Your task to perform on an android device: Search for seafood restaurants on Google Maps Image 0: 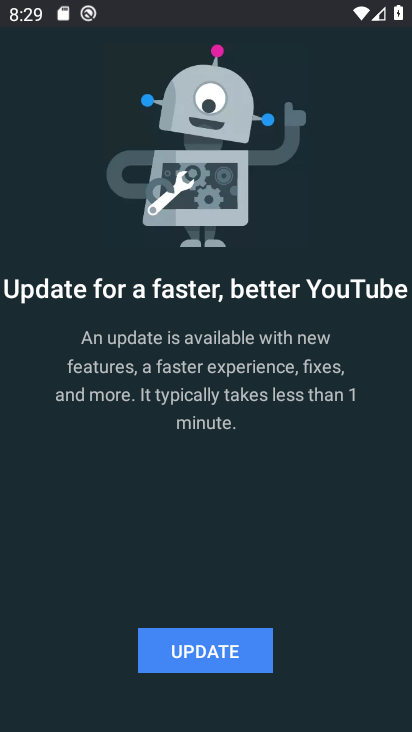
Step 0: press home button
Your task to perform on an android device: Search for seafood restaurants on Google Maps Image 1: 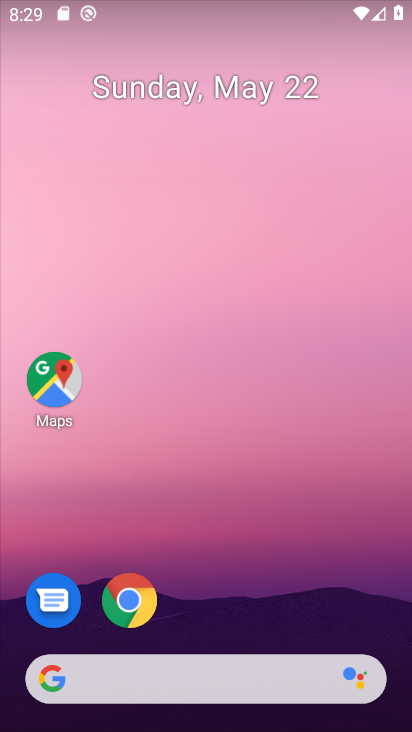
Step 1: drag from (211, 593) to (229, 320)
Your task to perform on an android device: Search for seafood restaurants on Google Maps Image 2: 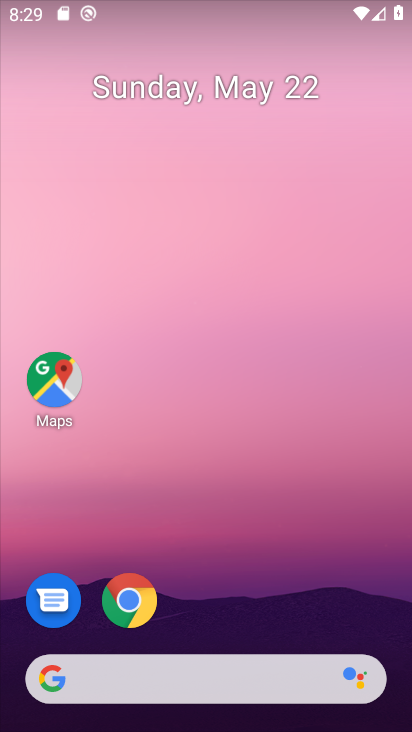
Step 2: click (56, 394)
Your task to perform on an android device: Search for seafood restaurants on Google Maps Image 3: 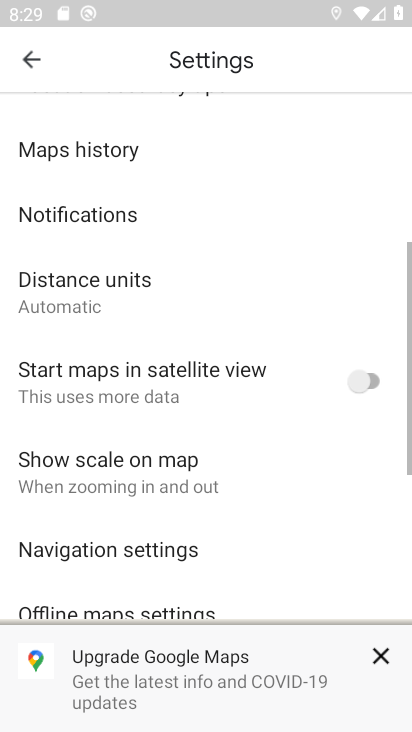
Step 3: click (30, 63)
Your task to perform on an android device: Search for seafood restaurants on Google Maps Image 4: 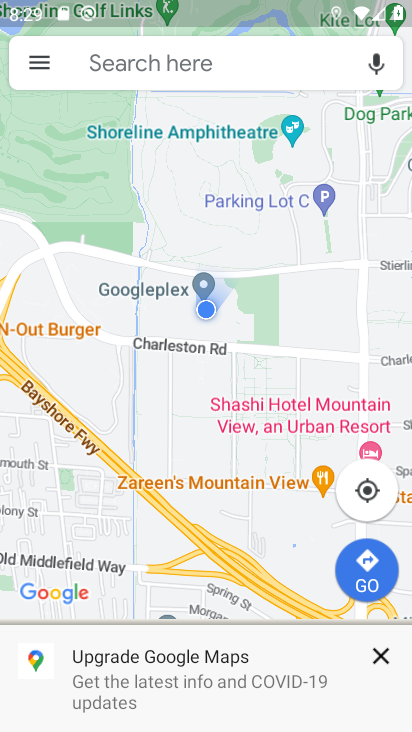
Step 4: click (233, 67)
Your task to perform on an android device: Search for seafood restaurants on Google Maps Image 5: 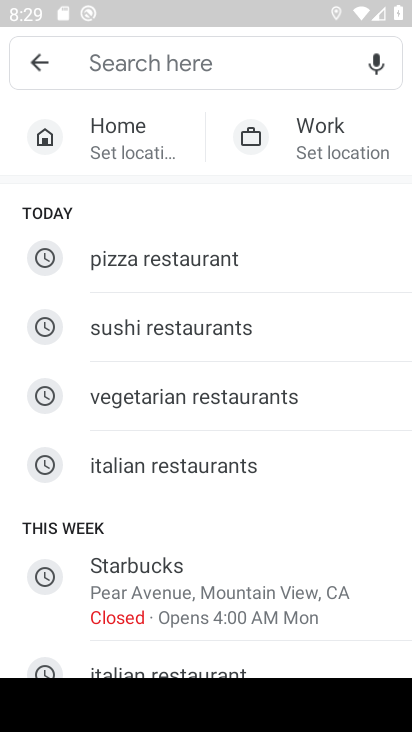
Step 5: drag from (140, 523) to (148, 209)
Your task to perform on an android device: Search for seafood restaurants on Google Maps Image 6: 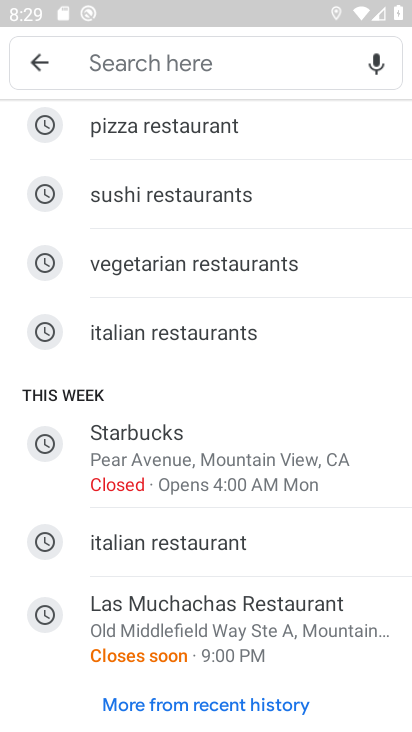
Step 6: drag from (150, 616) to (162, 339)
Your task to perform on an android device: Search for seafood restaurants on Google Maps Image 7: 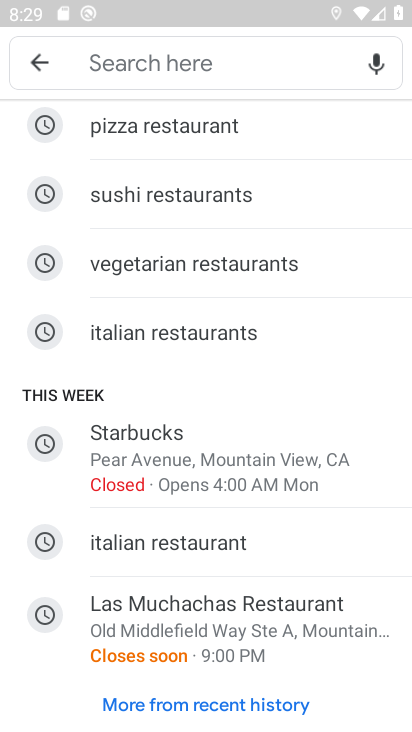
Step 7: click (170, 713)
Your task to perform on an android device: Search for seafood restaurants on Google Maps Image 8: 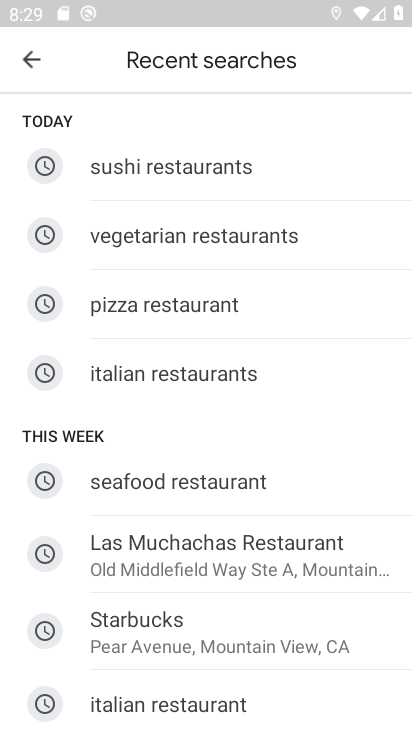
Step 8: drag from (172, 659) to (201, 406)
Your task to perform on an android device: Search for seafood restaurants on Google Maps Image 9: 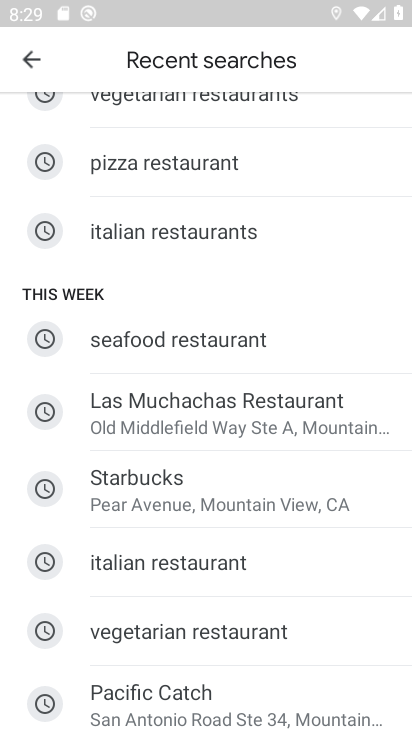
Step 9: click (224, 342)
Your task to perform on an android device: Search for seafood restaurants on Google Maps Image 10: 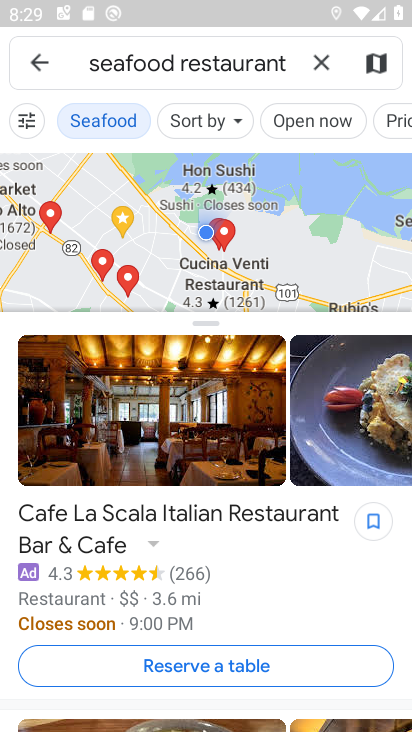
Step 10: task complete